Your task to perform on an android device: Open Google Chrome and open the bookmarks view Image 0: 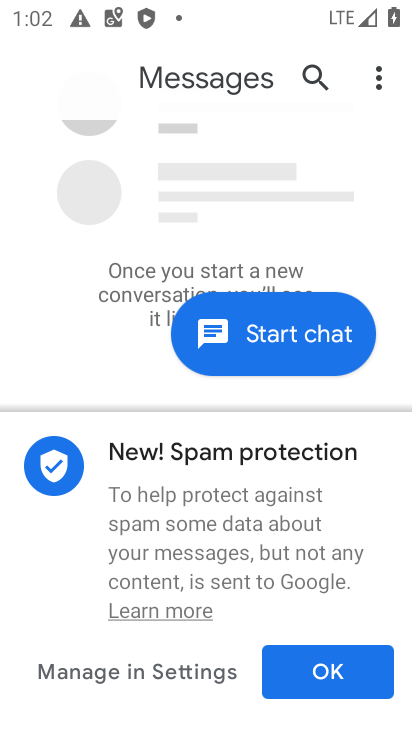
Step 0: drag from (198, 600) to (180, 277)
Your task to perform on an android device: Open Google Chrome and open the bookmarks view Image 1: 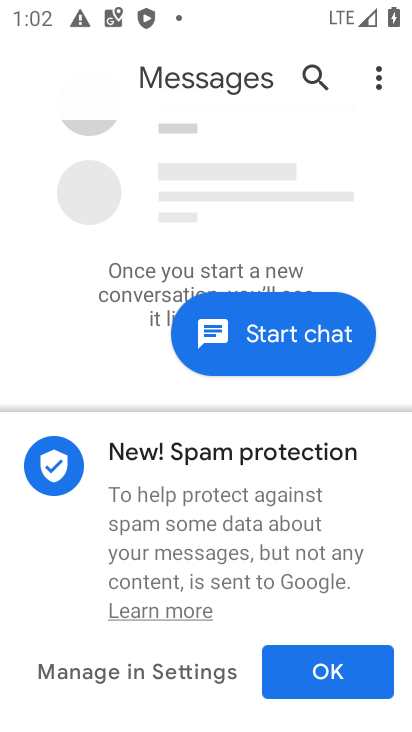
Step 1: press home button
Your task to perform on an android device: Open Google Chrome and open the bookmarks view Image 2: 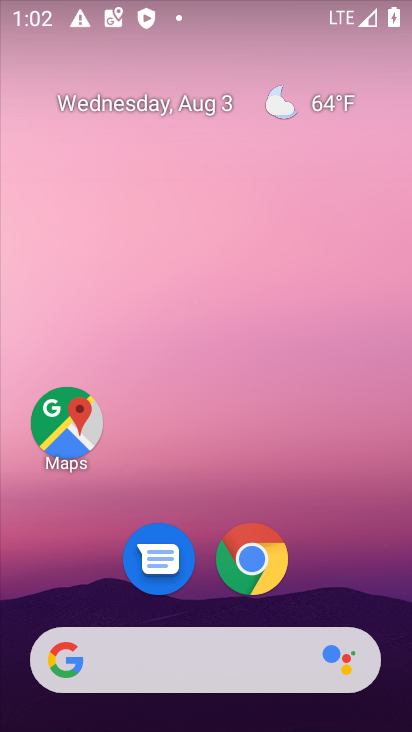
Step 2: drag from (200, 602) to (204, 102)
Your task to perform on an android device: Open Google Chrome and open the bookmarks view Image 3: 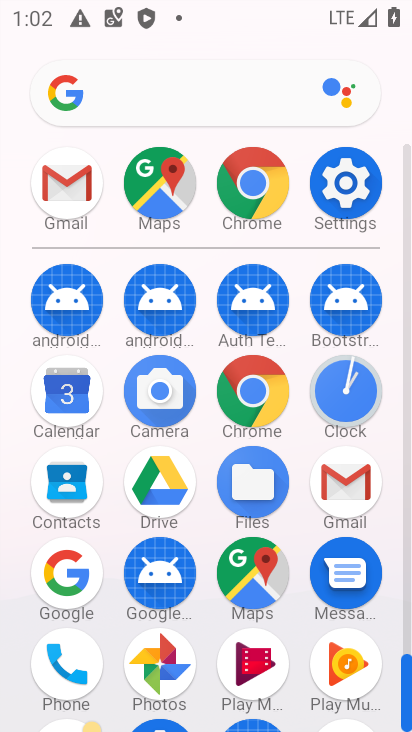
Step 3: click (265, 391)
Your task to perform on an android device: Open Google Chrome and open the bookmarks view Image 4: 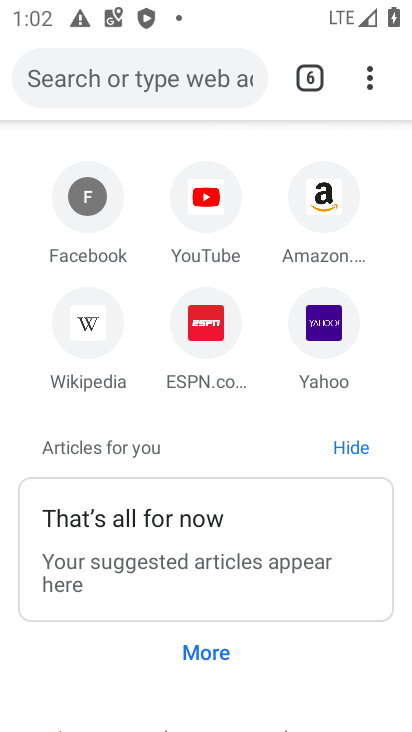
Step 4: click (369, 85)
Your task to perform on an android device: Open Google Chrome and open the bookmarks view Image 5: 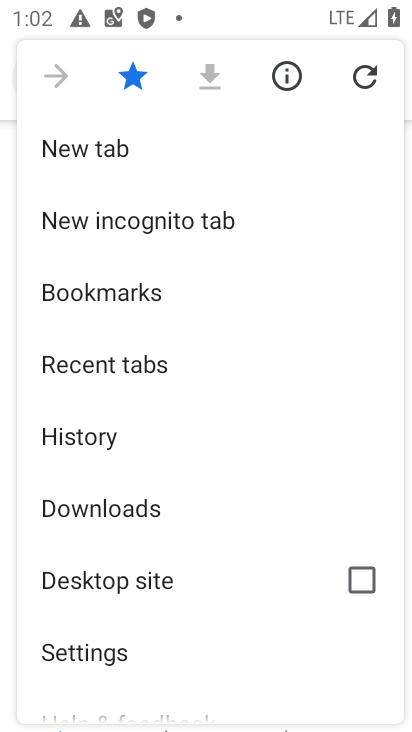
Step 5: click (82, 294)
Your task to perform on an android device: Open Google Chrome and open the bookmarks view Image 6: 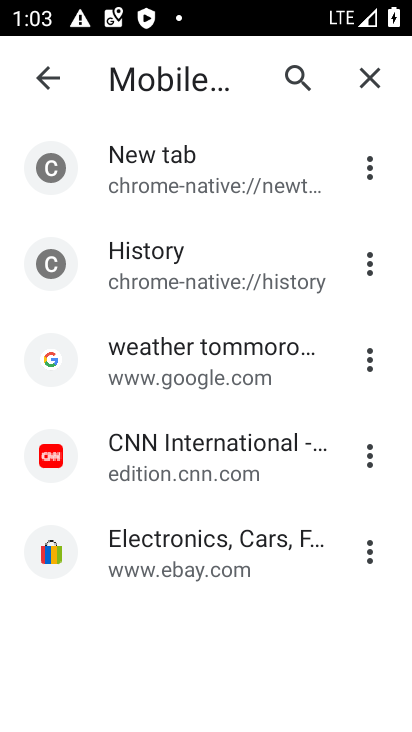
Step 6: task complete